Your task to perform on an android device: What's on my calendar today? Image 0: 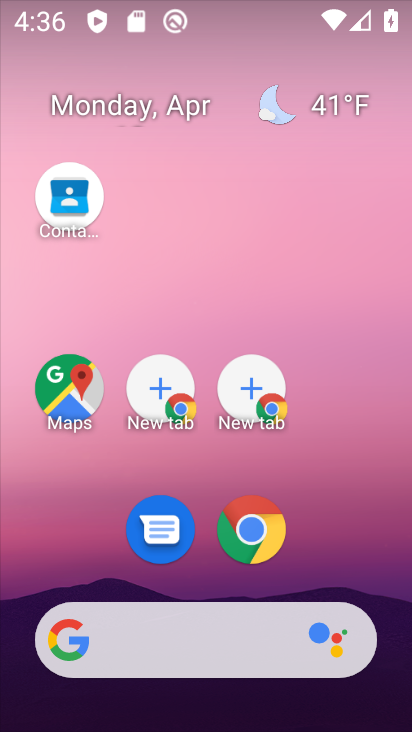
Step 0: drag from (119, 553) to (249, 9)
Your task to perform on an android device: What's on my calendar today? Image 1: 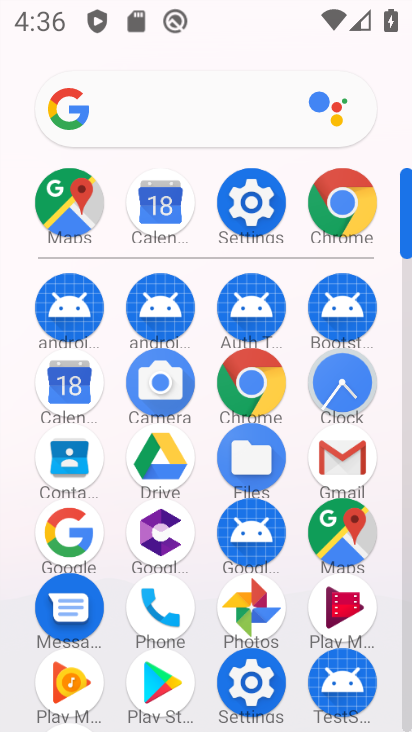
Step 1: click (73, 376)
Your task to perform on an android device: What's on my calendar today? Image 2: 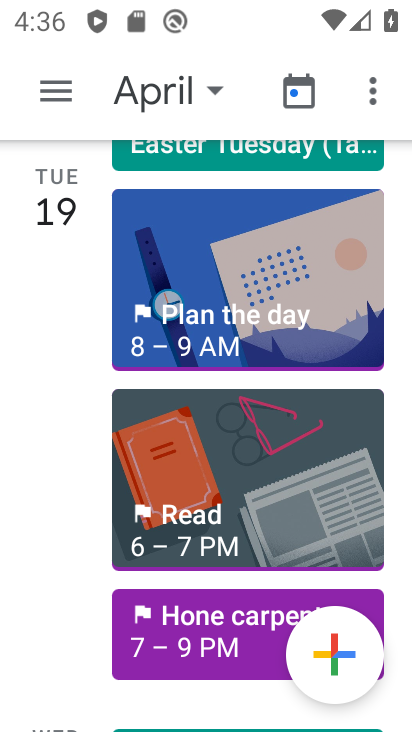
Step 2: drag from (233, 253) to (187, 664)
Your task to perform on an android device: What's on my calendar today? Image 3: 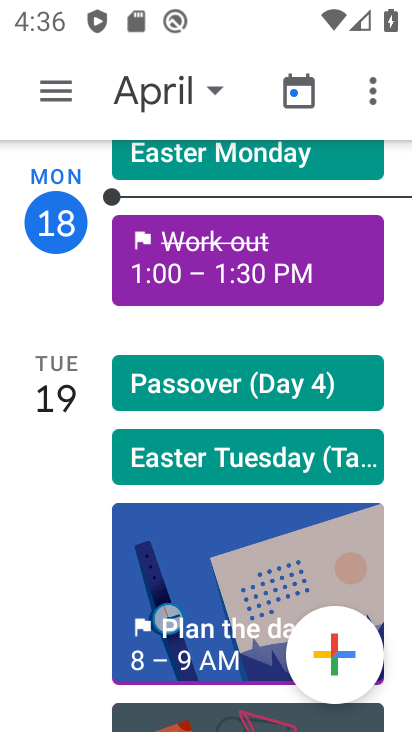
Step 3: drag from (202, 257) to (203, 600)
Your task to perform on an android device: What's on my calendar today? Image 4: 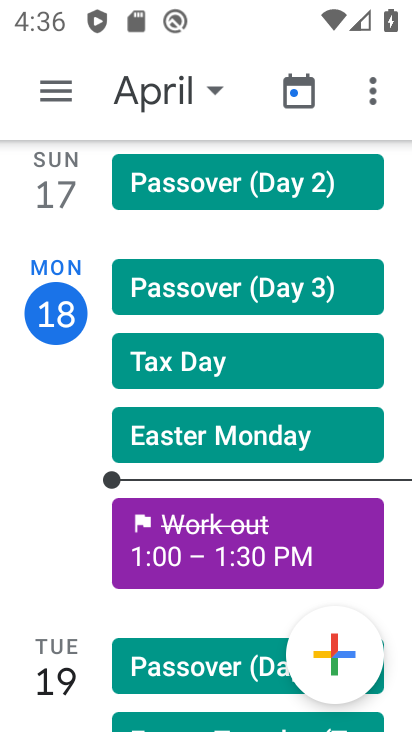
Step 4: click (226, 284)
Your task to perform on an android device: What's on my calendar today? Image 5: 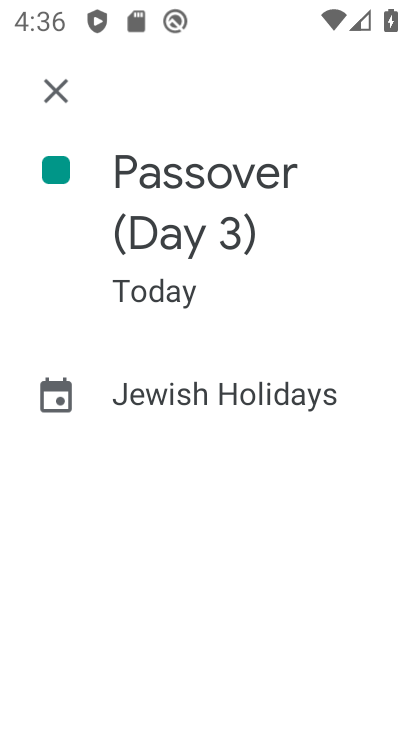
Step 5: task complete